Your task to perform on an android device: toggle notifications settings in the gmail app Image 0: 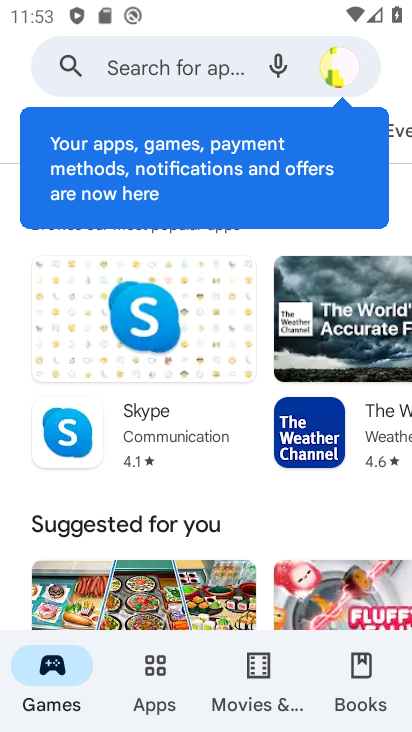
Step 0: press home button
Your task to perform on an android device: toggle notifications settings in the gmail app Image 1: 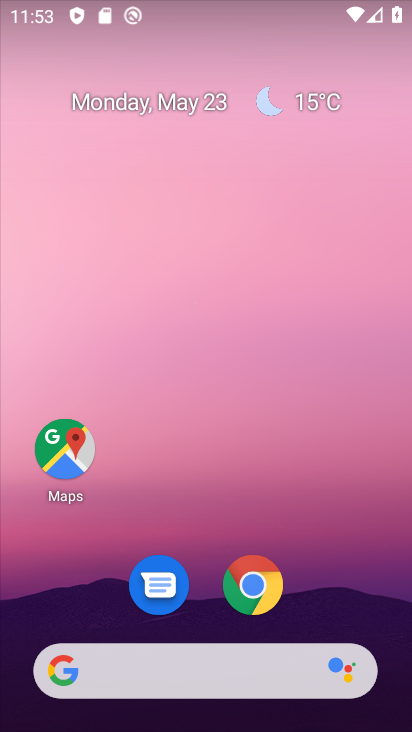
Step 1: drag from (235, 519) to (281, 0)
Your task to perform on an android device: toggle notifications settings in the gmail app Image 2: 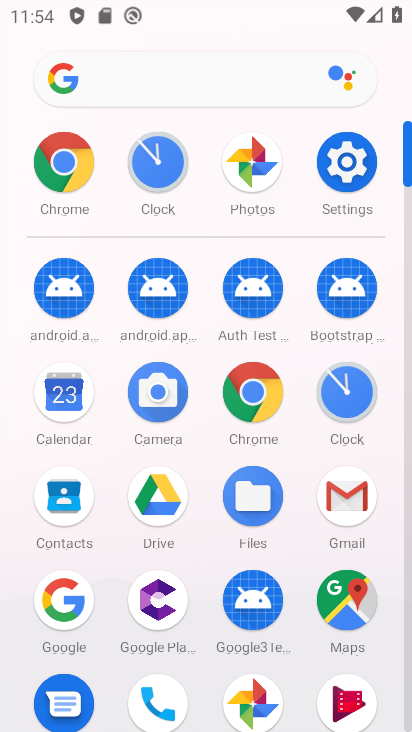
Step 2: click (331, 486)
Your task to perform on an android device: toggle notifications settings in the gmail app Image 3: 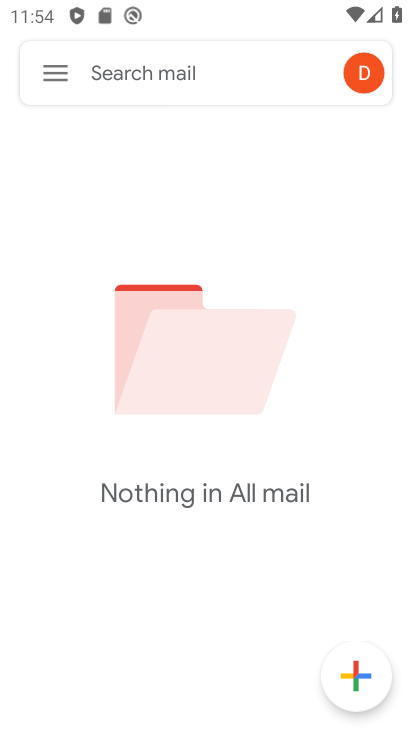
Step 3: click (50, 75)
Your task to perform on an android device: toggle notifications settings in the gmail app Image 4: 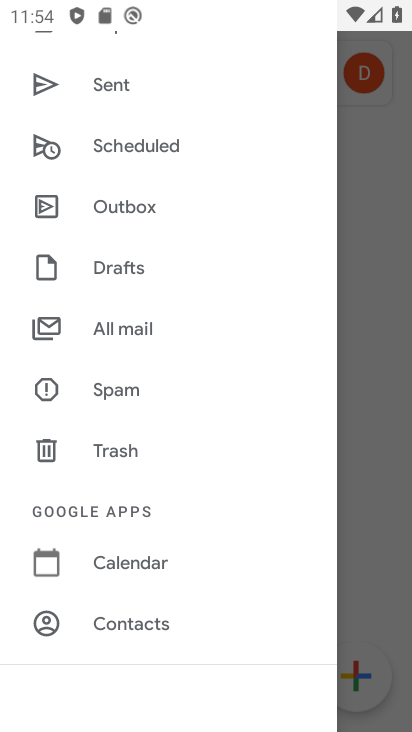
Step 4: drag from (167, 515) to (180, 252)
Your task to perform on an android device: toggle notifications settings in the gmail app Image 5: 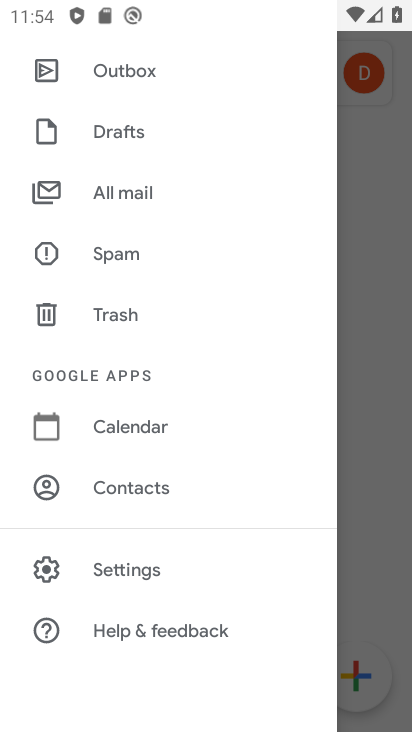
Step 5: click (149, 561)
Your task to perform on an android device: toggle notifications settings in the gmail app Image 6: 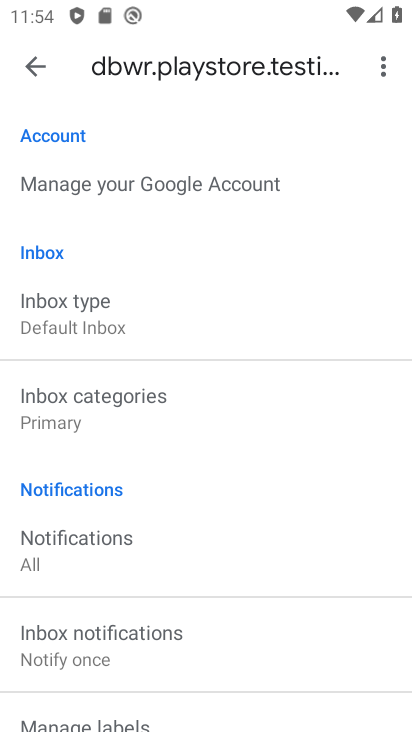
Step 6: drag from (225, 471) to (254, 158)
Your task to perform on an android device: toggle notifications settings in the gmail app Image 7: 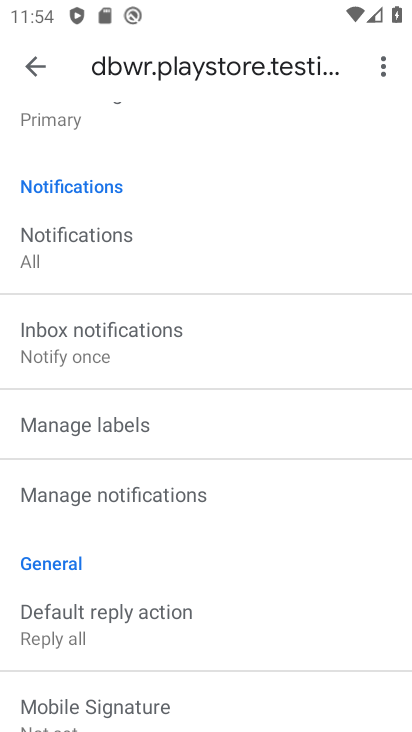
Step 7: click (220, 494)
Your task to perform on an android device: toggle notifications settings in the gmail app Image 8: 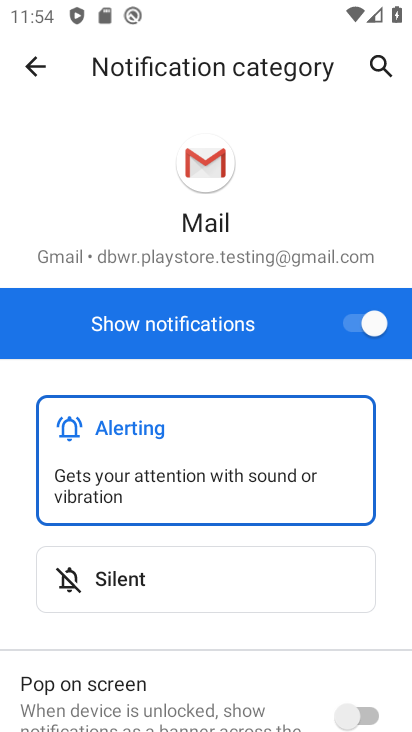
Step 8: click (358, 325)
Your task to perform on an android device: toggle notifications settings in the gmail app Image 9: 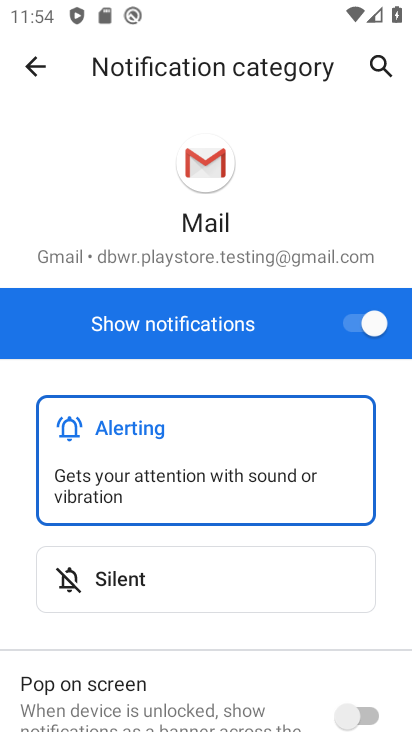
Step 9: click (364, 321)
Your task to perform on an android device: toggle notifications settings in the gmail app Image 10: 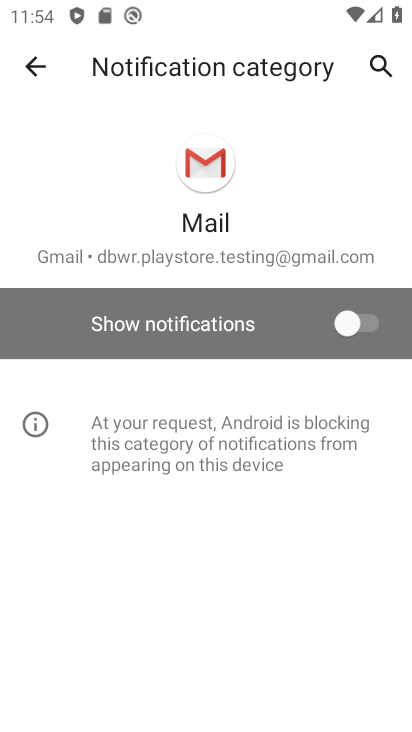
Step 10: task complete